Your task to perform on an android device: empty trash in the gmail app Image 0: 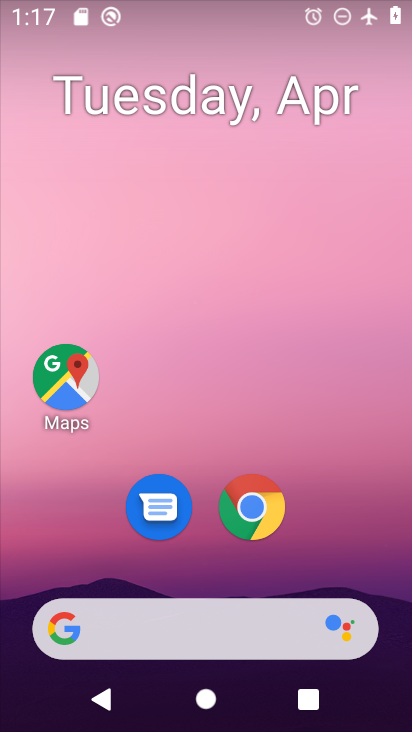
Step 0: drag from (330, 536) to (302, 79)
Your task to perform on an android device: empty trash in the gmail app Image 1: 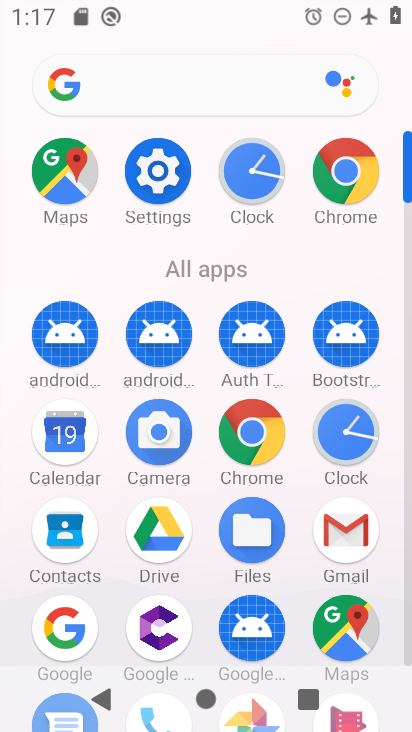
Step 1: click (351, 547)
Your task to perform on an android device: empty trash in the gmail app Image 2: 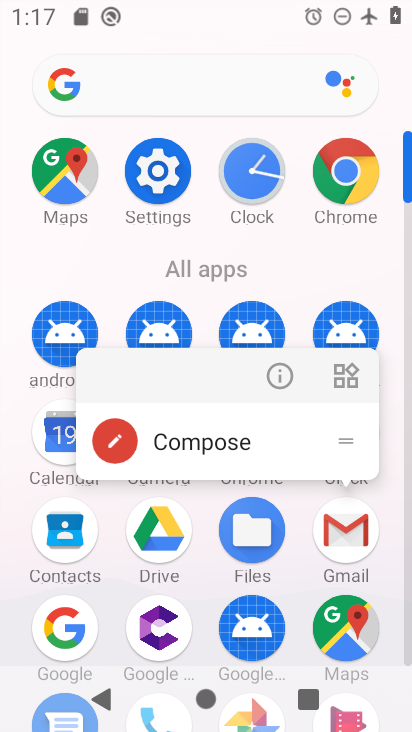
Step 2: click (375, 531)
Your task to perform on an android device: empty trash in the gmail app Image 3: 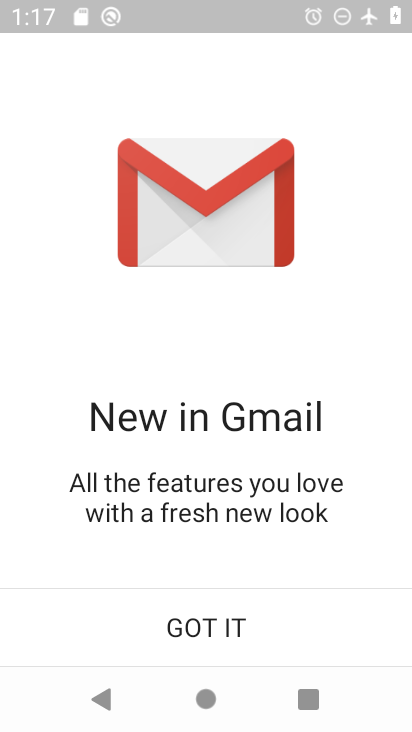
Step 3: click (192, 638)
Your task to perform on an android device: empty trash in the gmail app Image 4: 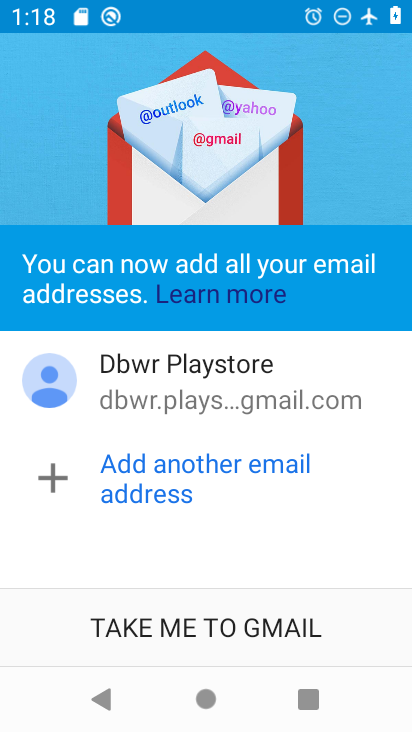
Step 4: click (302, 614)
Your task to perform on an android device: empty trash in the gmail app Image 5: 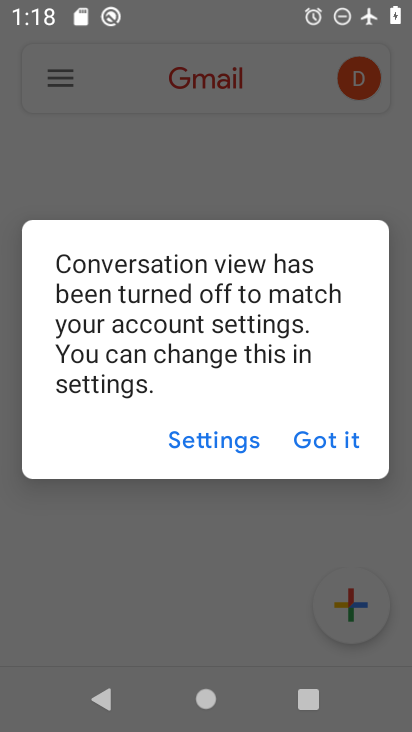
Step 5: click (308, 452)
Your task to perform on an android device: empty trash in the gmail app Image 6: 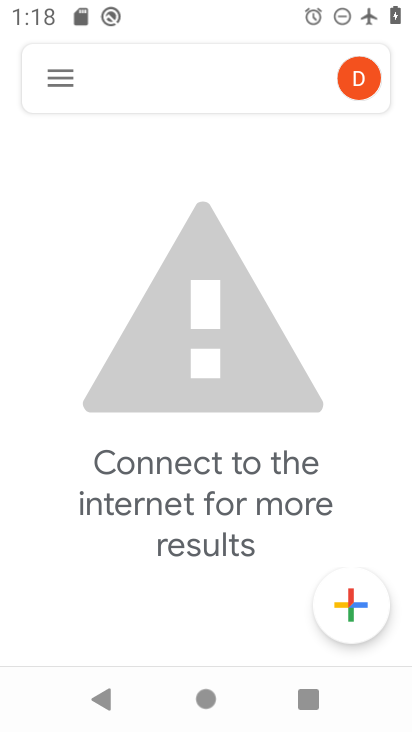
Step 6: click (66, 81)
Your task to perform on an android device: empty trash in the gmail app Image 7: 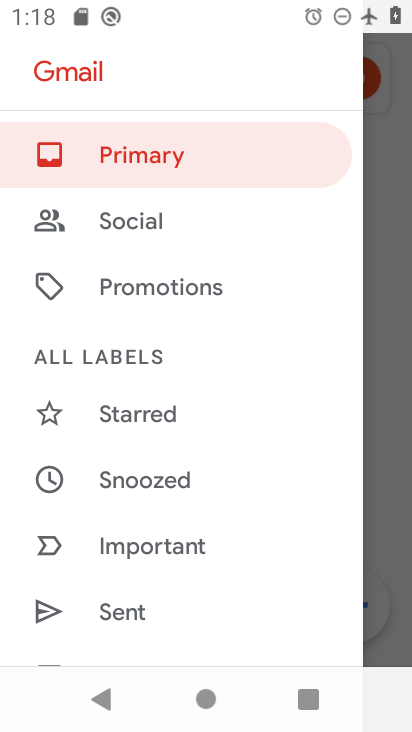
Step 7: drag from (173, 565) to (211, 230)
Your task to perform on an android device: empty trash in the gmail app Image 8: 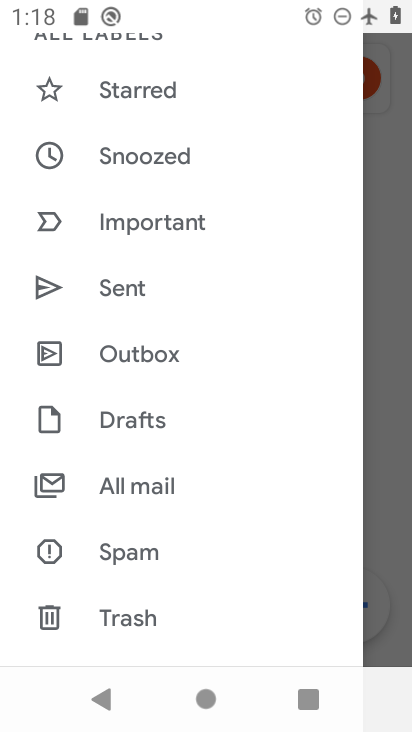
Step 8: click (161, 607)
Your task to perform on an android device: empty trash in the gmail app Image 9: 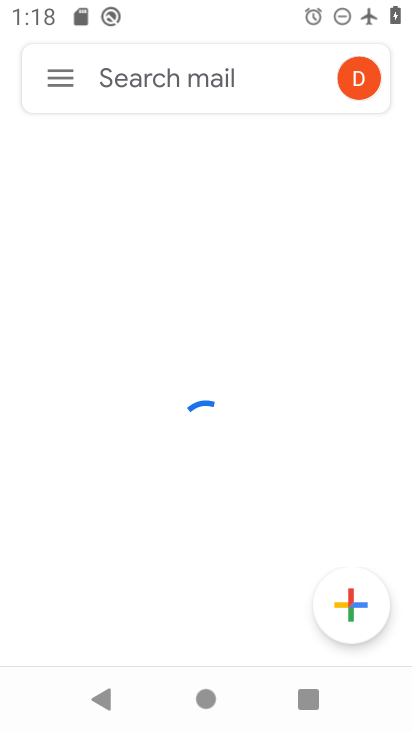
Step 9: task complete